Your task to perform on an android device: Find coffee shops on Maps Image 0: 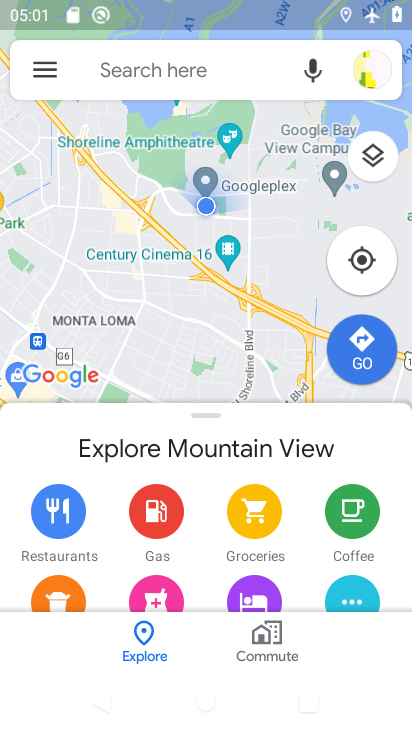
Step 0: click (149, 62)
Your task to perform on an android device: Find coffee shops on Maps Image 1: 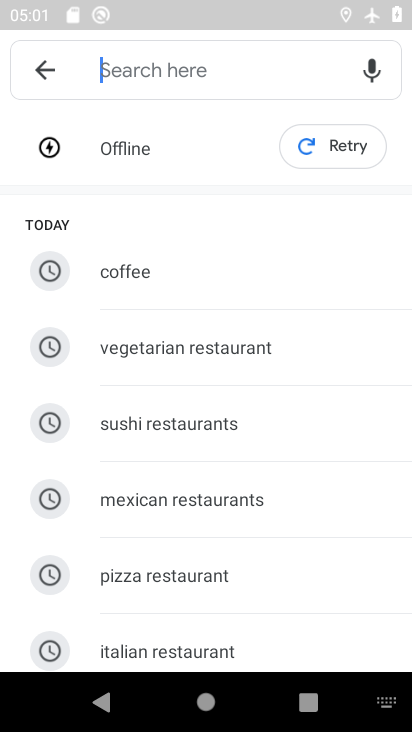
Step 1: type "coffee"
Your task to perform on an android device: Find coffee shops on Maps Image 2: 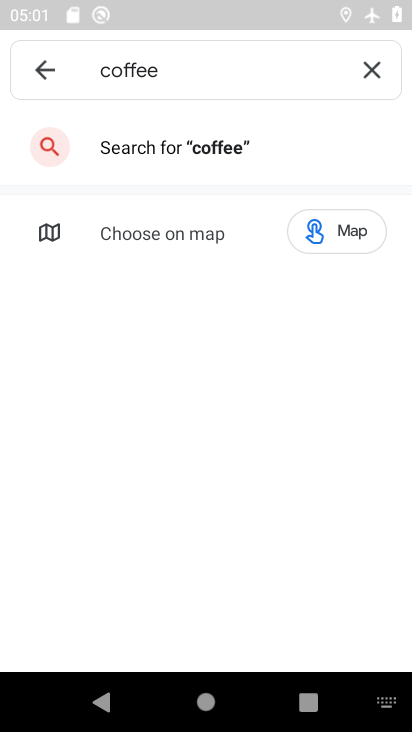
Step 2: click (213, 152)
Your task to perform on an android device: Find coffee shops on Maps Image 3: 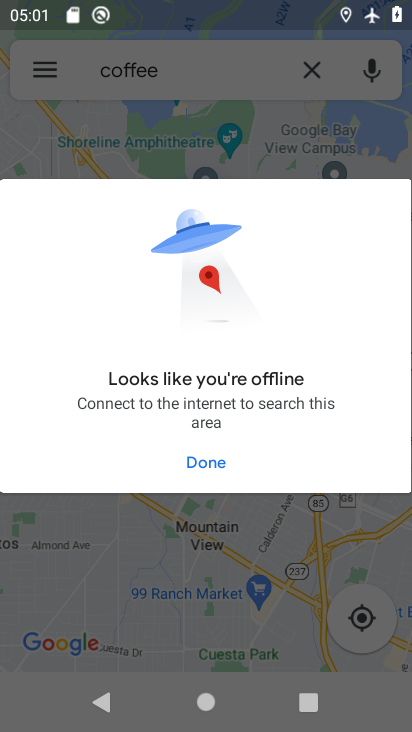
Step 3: click (196, 466)
Your task to perform on an android device: Find coffee shops on Maps Image 4: 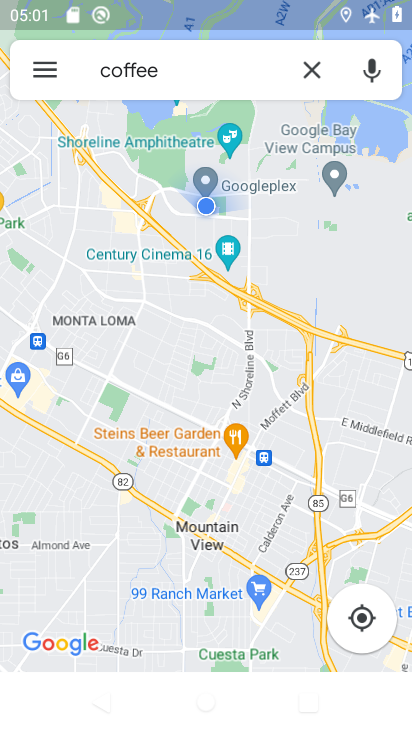
Step 4: task complete